Your task to perform on an android device: toggle sleep mode Image 0: 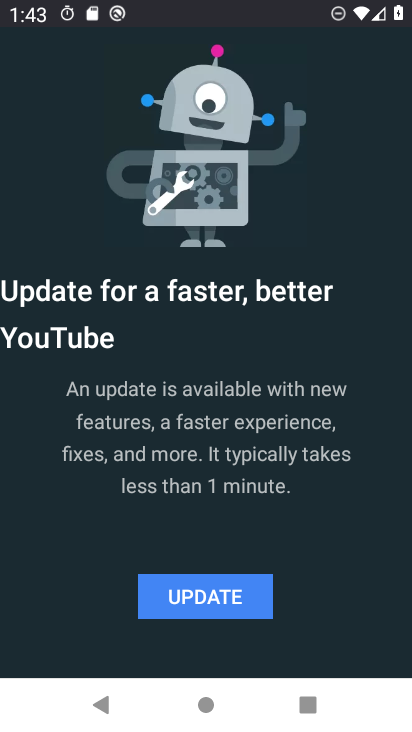
Step 0: press home button
Your task to perform on an android device: toggle sleep mode Image 1: 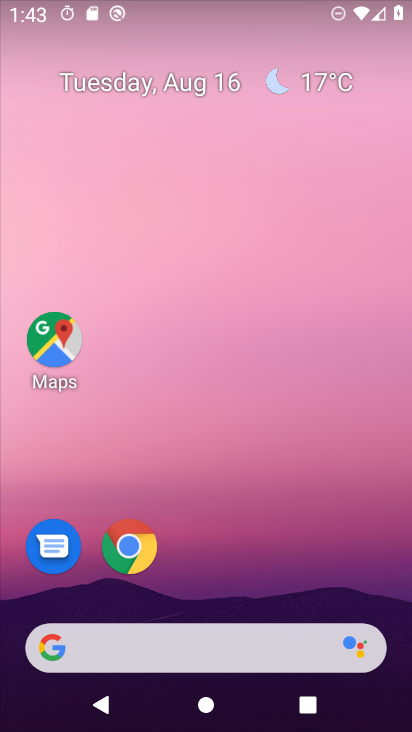
Step 1: drag from (214, 614) to (199, 82)
Your task to perform on an android device: toggle sleep mode Image 2: 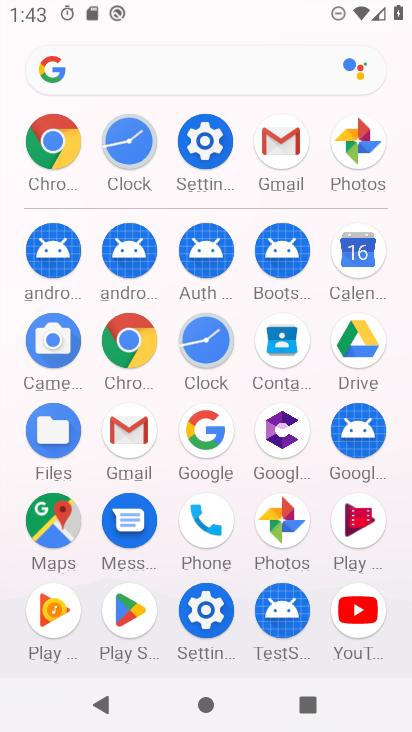
Step 2: click (204, 145)
Your task to perform on an android device: toggle sleep mode Image 3: 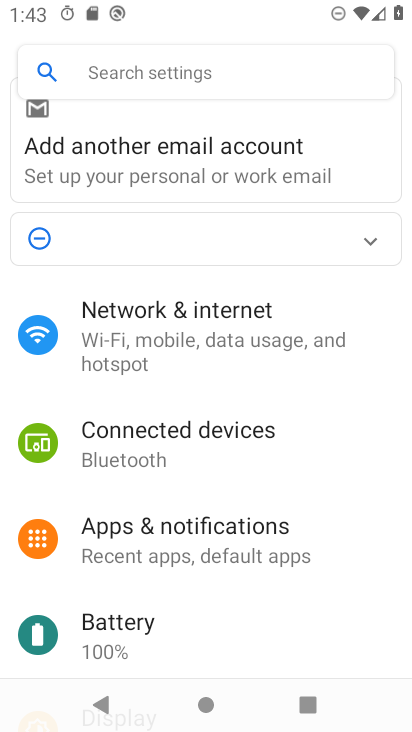
Step 3: drag from (168, 641) to (147, 199)
Your task to perform on an android device: toggle sleep mode Image 4: 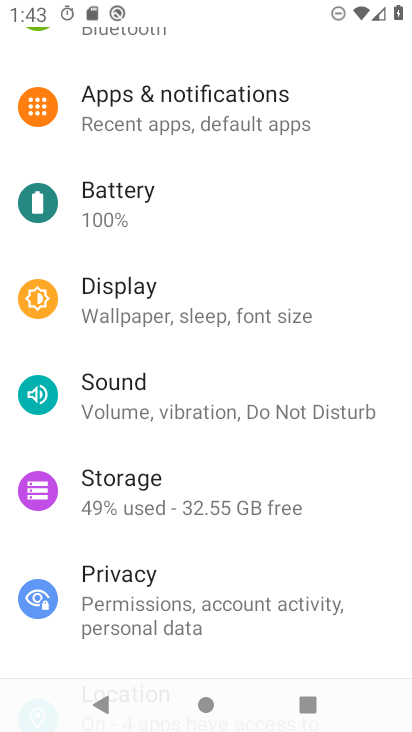
Step 4: click (190, 316)
Your task to perform on an android device: toggle sleep mode Image 5: 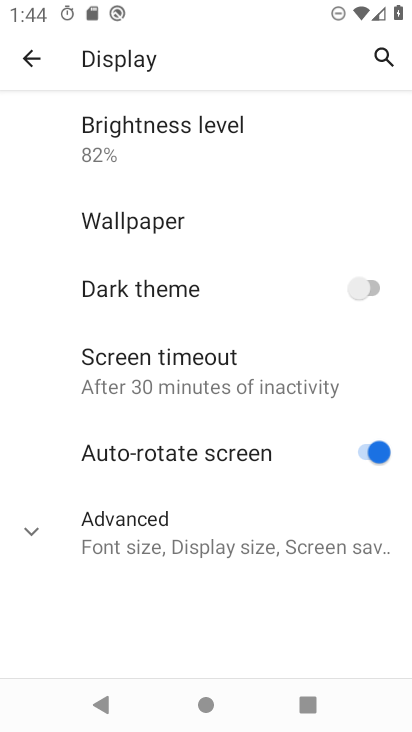
Step 5: task complete